Your task to perform on an android device: turn on airplane mode Image 0: 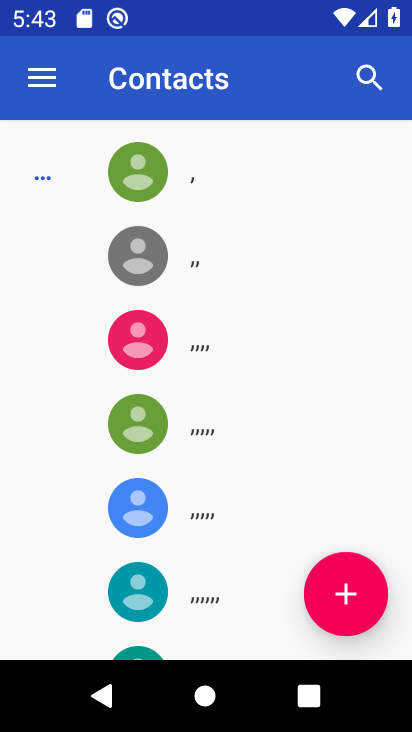
Step 0: press home button
Your task to perform on an android device: turn on airplane mode Image 1: 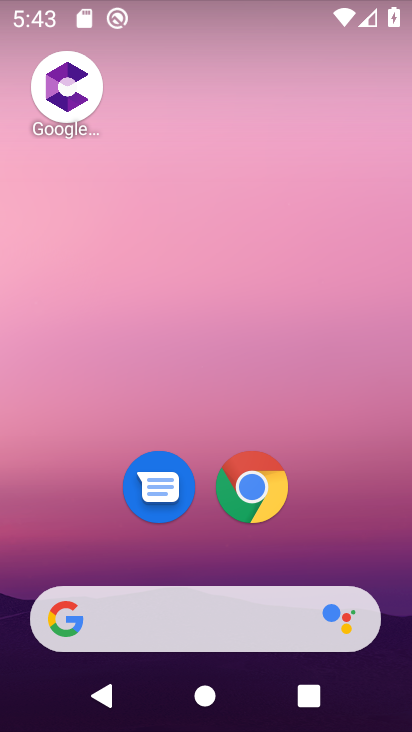
Step 1: drag from (272, 5) to (240, 491)
Your task to perform on an android device: turn on airplane mode Image 2: 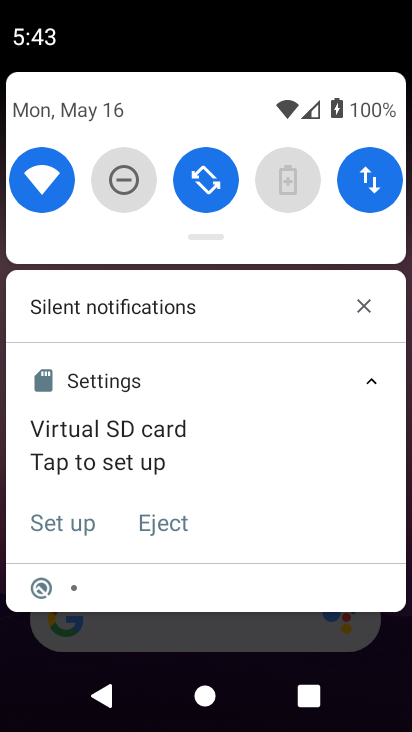
Step 2: drag from (253, 239) to (232, 719)
Your task to perform on an android device: turn on airplane mode Image 3: 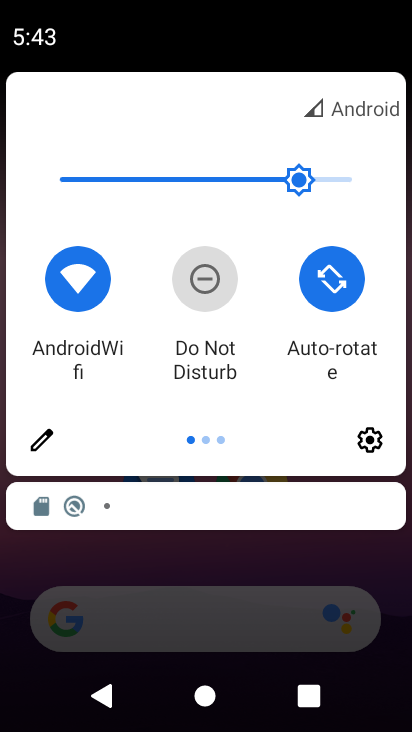
Step 3: drag from (325, 286) to (0, 318)
Your task to perform on an android device: turn on airplane mode Image 4: 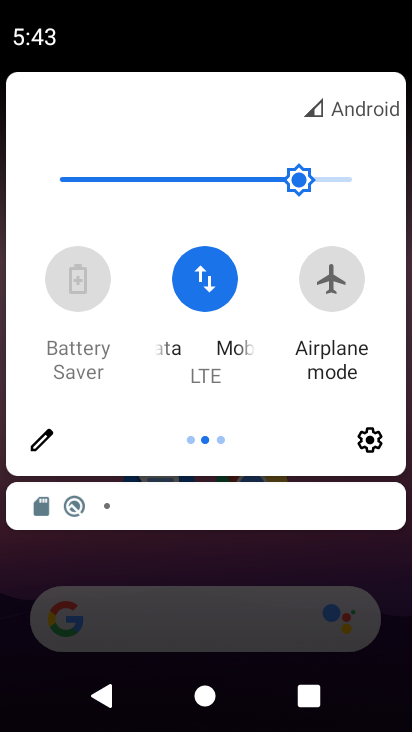
Step 4: click (333, 287)
Your task to perform on an android device: turn on airplane mode Image 5: 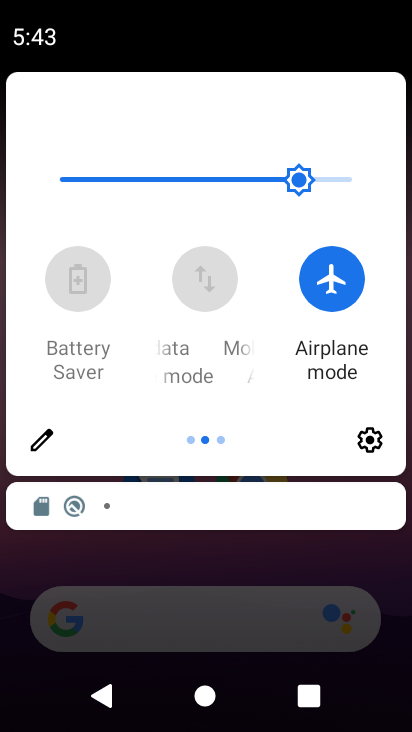
Step 5: task complete